Your task to perform on an android device: Open settings Image 0: 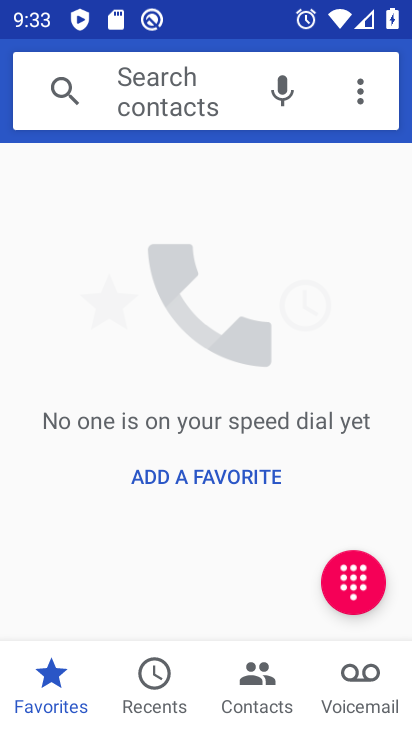
Step 0: press home button
Your task to perform on an android device: Open settings Image 1: 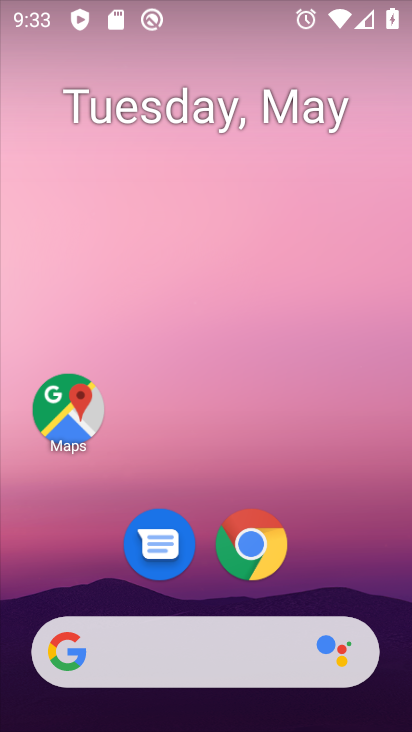
Step 1: drag from (349, 538) to (349, 199)
Your task to perform on an android device: Open settings Image 2: 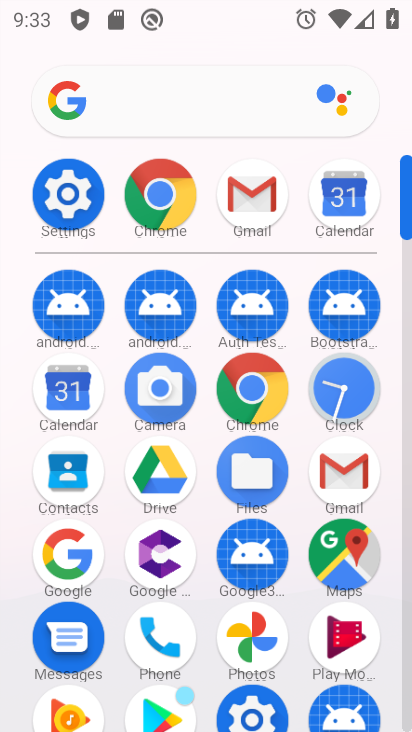
Step 2: drag from (296, 646) to (306, 316)
Your task to perform on an android device: Open settings Image 3: 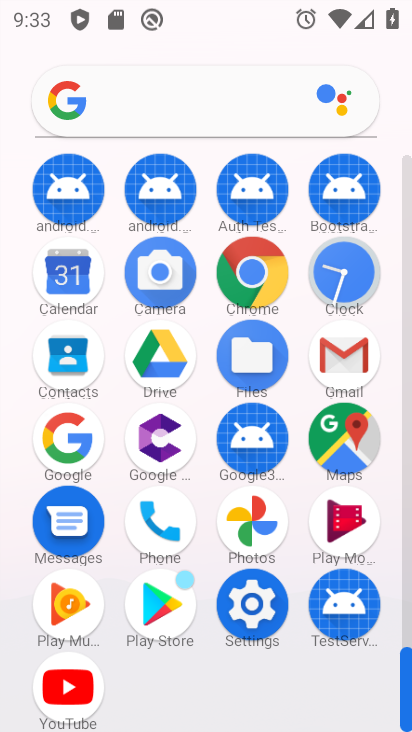
Step 3: click (257, 604)
Your task to perform on an android device: Open settings Image 4: 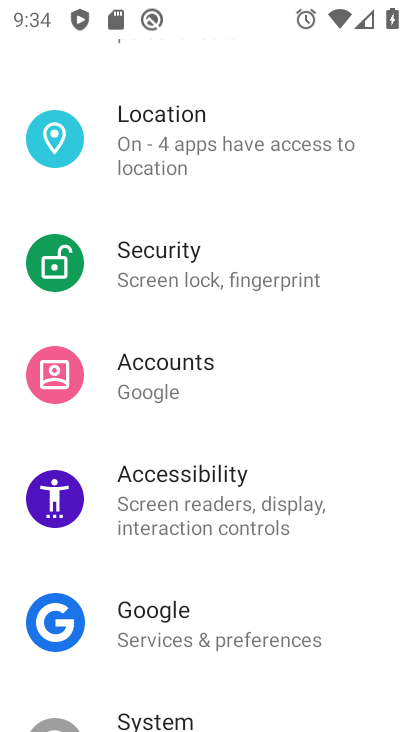
Step 4: task complete